Your task to perform on an android device: Open the phone app and click the voicemail tab. Image 0: 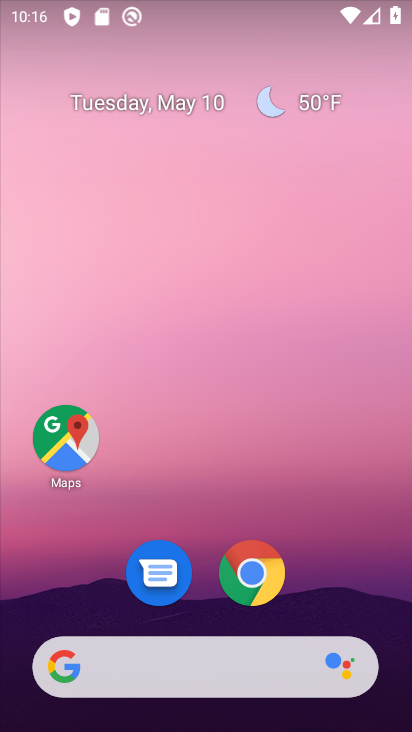
Step 0: drag from (204, 600) to (258, 278)
Your task to perform on an android device: Open the phone app and click the voicemail tab. Image 1: 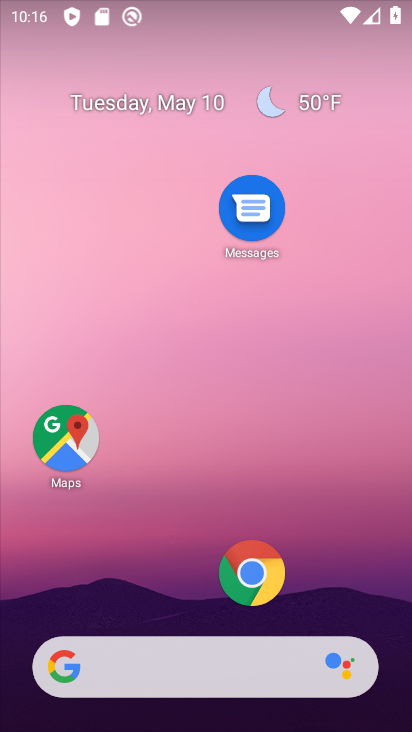
Step 1: drag from (185, 581) to (223, 117)
Your task to perform on an android device: Open the phone app and click the voicemail tab. Image 2: 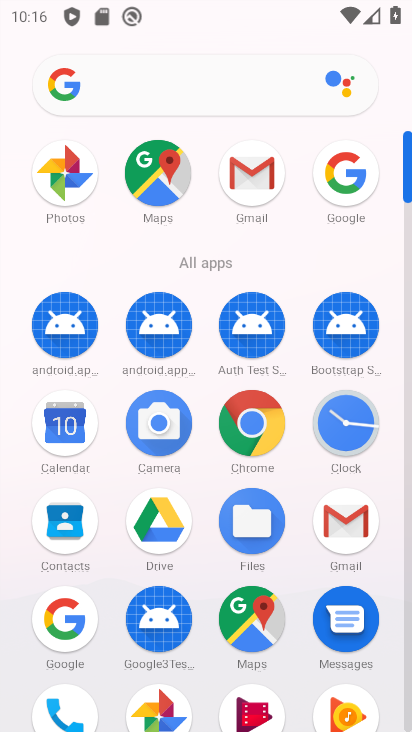
Step 2: click (70, 692)
Your task to perform on an android device: Open the phone app and click the voicemail tab. Image 3: 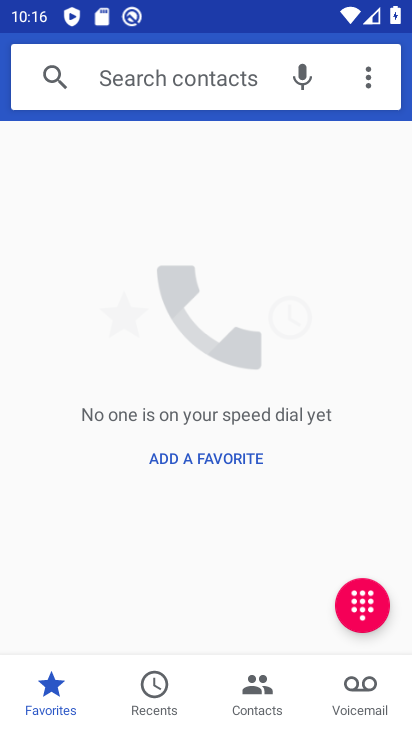
Step 3: click (344, 694)
Your task to perform on an android device: Open the phone app and click the voicemail tab. Image 4: 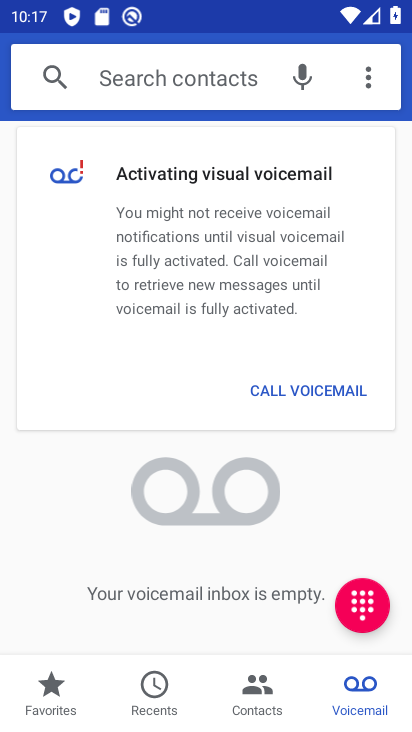
Step 4: task complete